Your task to perform on an android device: set the timer Image 0: 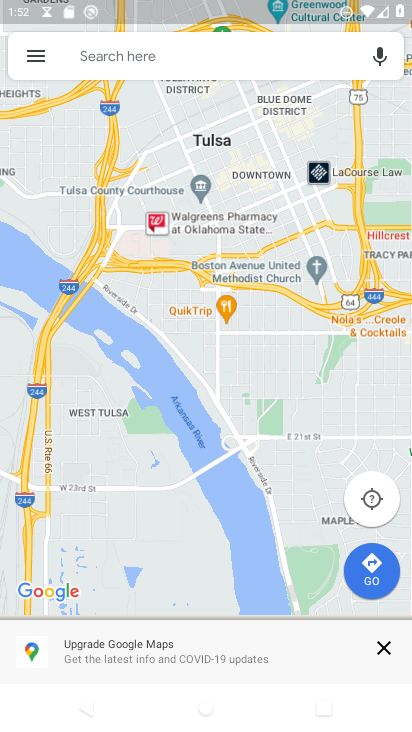
Step 0: press home button
Your task to perform on an android device: set the timer Image 1: 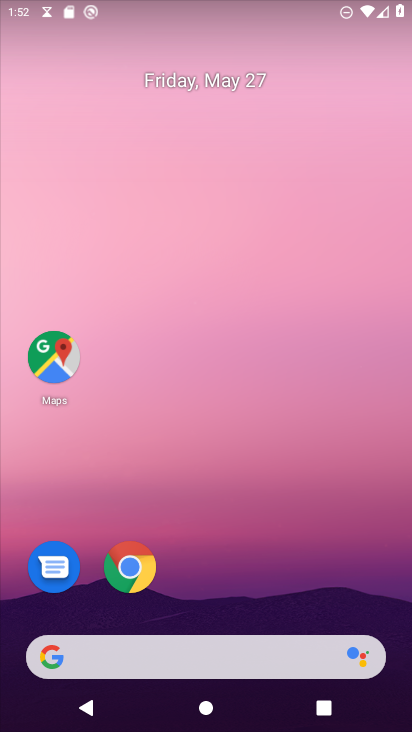
Step 1: drag from (242, 609) to (173, 179)
Your task to perform on an android device: set the timer Image 2: 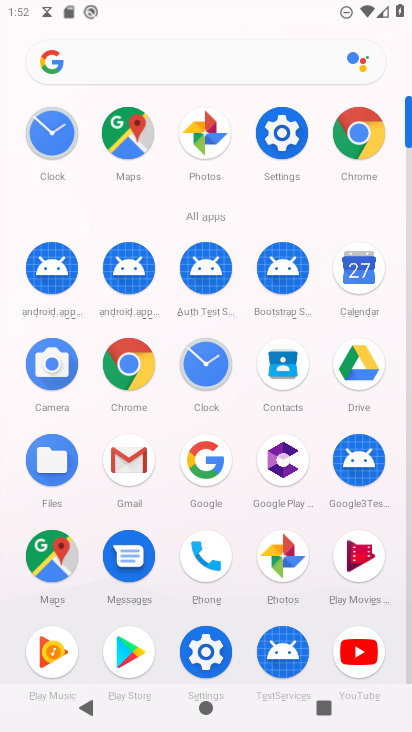
Step 2: click (213, 373)
Your task to perform on an android device: set the timer Image 3: 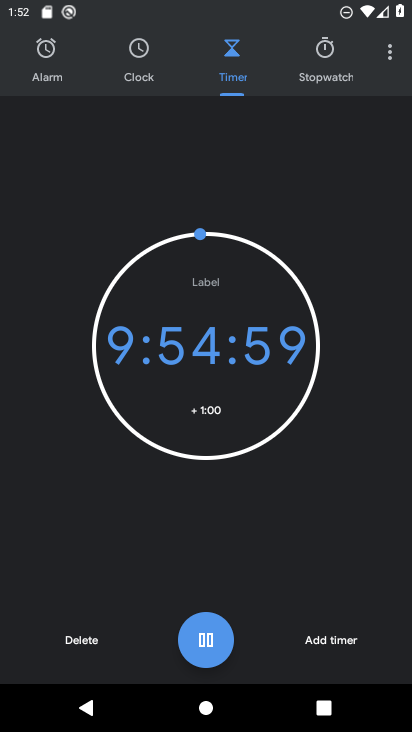
Step 3: task complete